Your task to perform on an android device: Turn off the flashlight Image 0: 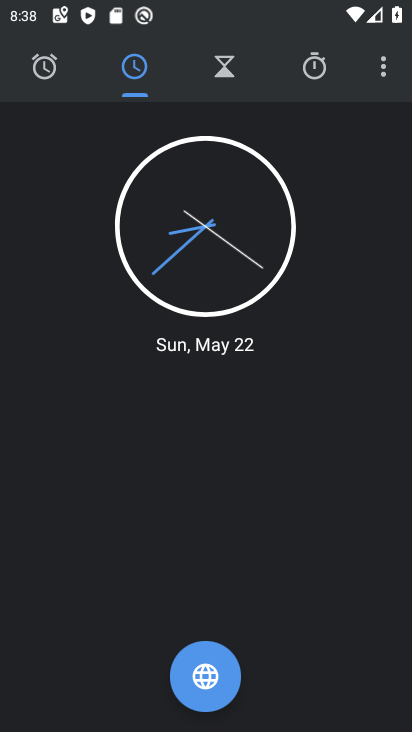
Step 0: press home button
Your task to perform on an android device: Turn off the flashlight Image 1: 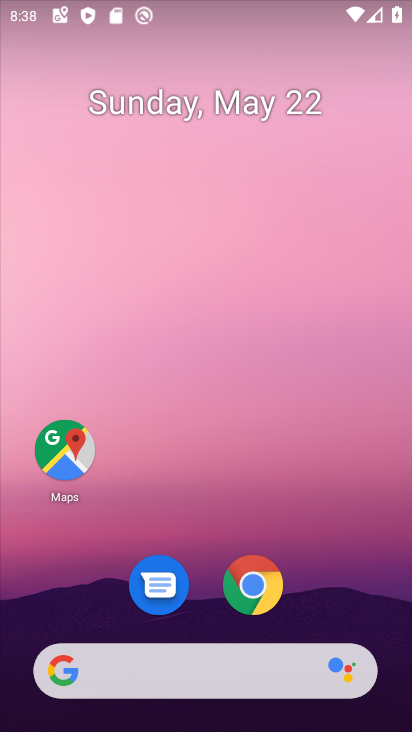
Step 1: drag from (215, 457) to (232, 54)
Your task to perform on an android device: Turn off the flashlight Image 2: 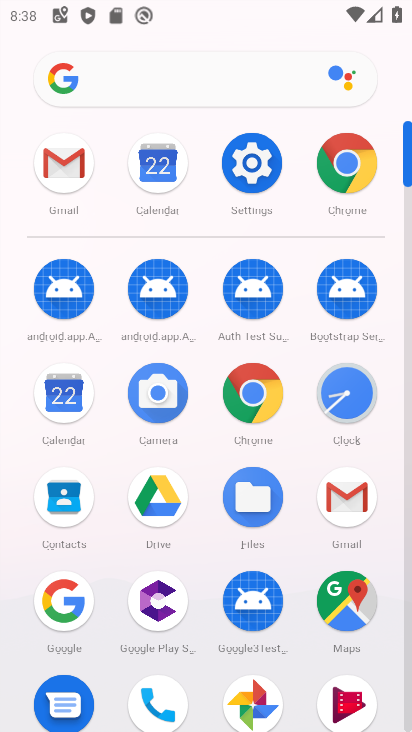
Step 2: click (243, 161)
Your task to perform on an android device: Turn off the flashlight Image 3: 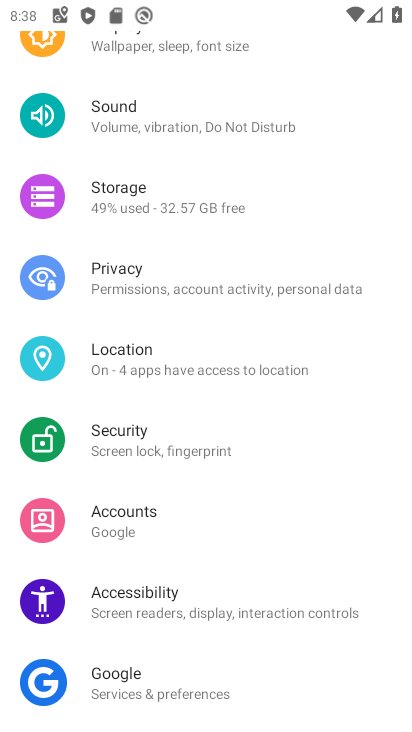
Step 3: drag from (243, 176) to (250, 640)
Your task to perform on an android device: Turn off the flashlight Image 4: 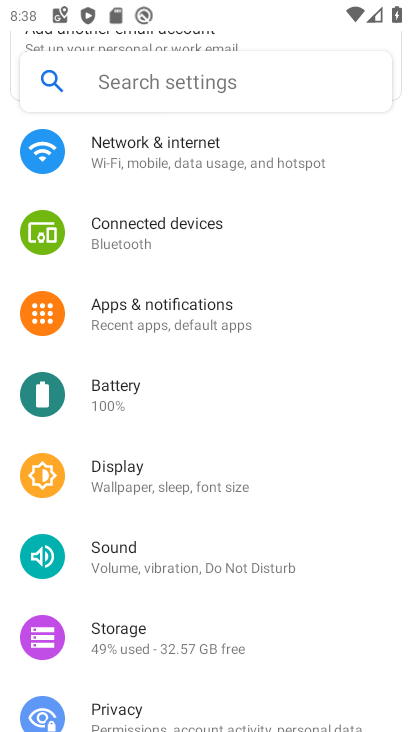
Step 4: drag from (216, 241) to (221, 605)
Your task to perform on an android device: Turn off the flashlight Image 5: 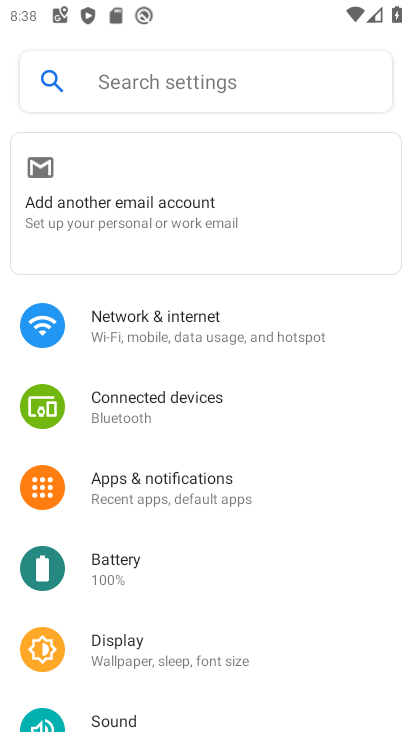
Step 5: click (240, 67)
Your task to perform on an android device: Turn off the flashlight Image 6: 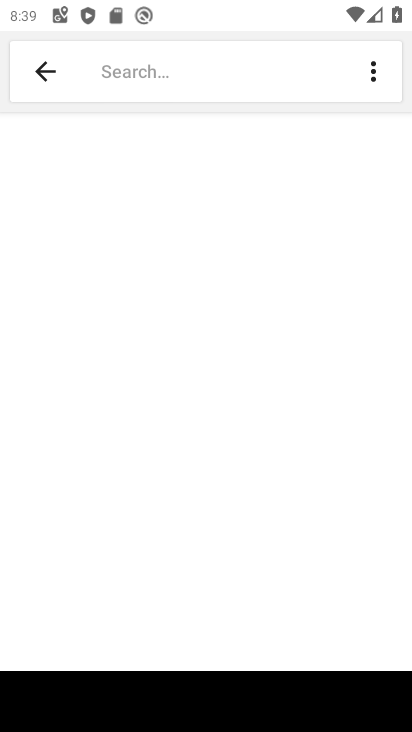
Step 6: type "Flashlight"
Your task to perform on an android device: Turn off the flashlight Image 7: 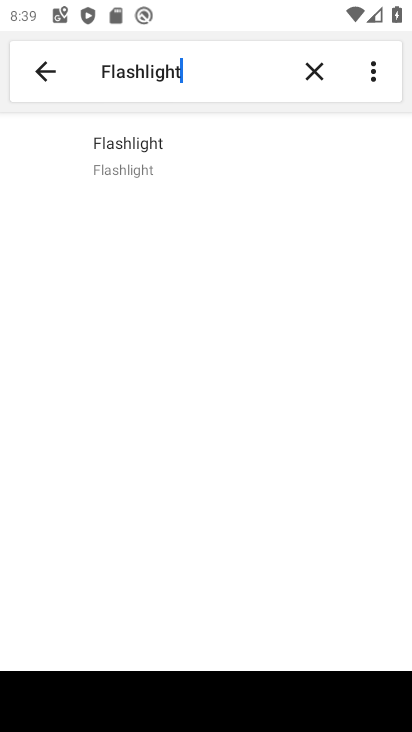
Step 7: click (152, 166)
Your task to perform on an android device: Turn off the flashlight Image 8: 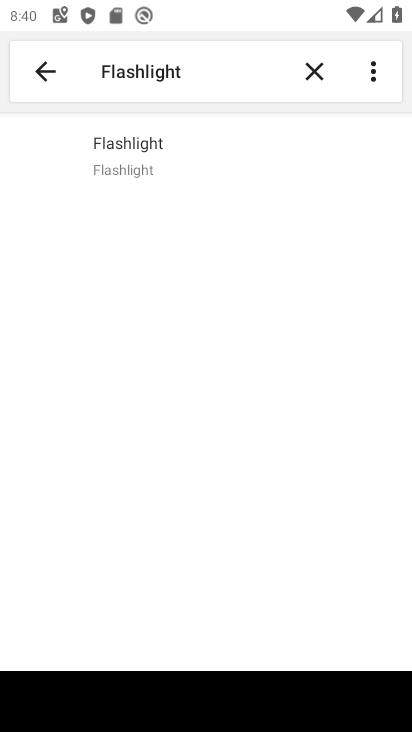
Step 8: task complete